Your task to perform on an android device: delete browsing data in the chrome app Image 0: 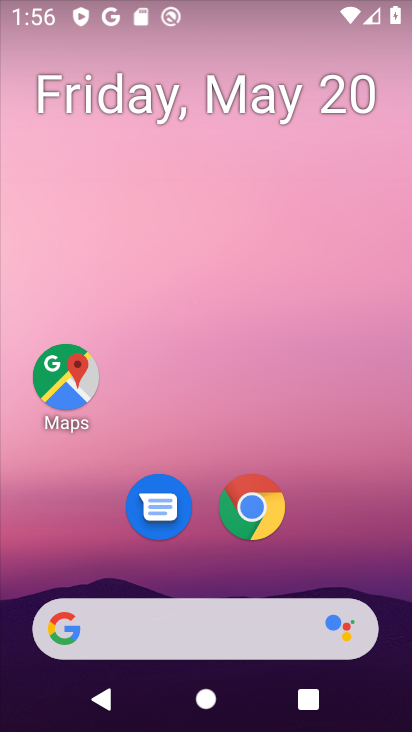
Step 0: click (248, 510)
Your task to perform on an android device: delete browsing data in the chrome app Image 1: 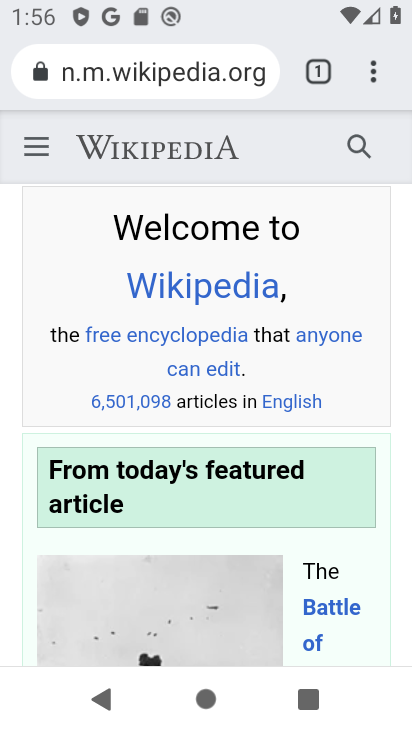
Step 1: click (374, 80)
Your task to perform on an android device: delete browsing data in the chrome app Image 2: 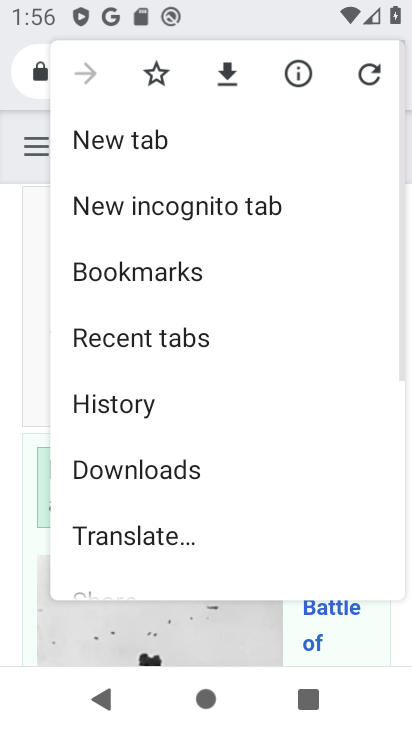
Step 2: click (193, 403)
Your task to perform on an android device: delete browsing data in the chrome app Image 3: 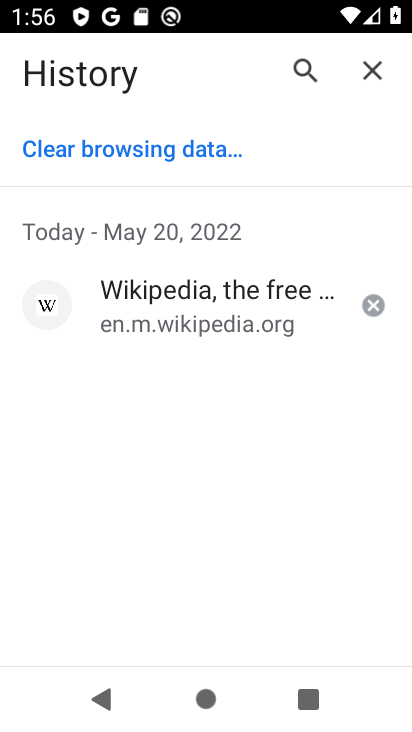
Step 3: click (77, 152)
Your task to perform on an android device: delete browsing data in the chrome app Image 4: 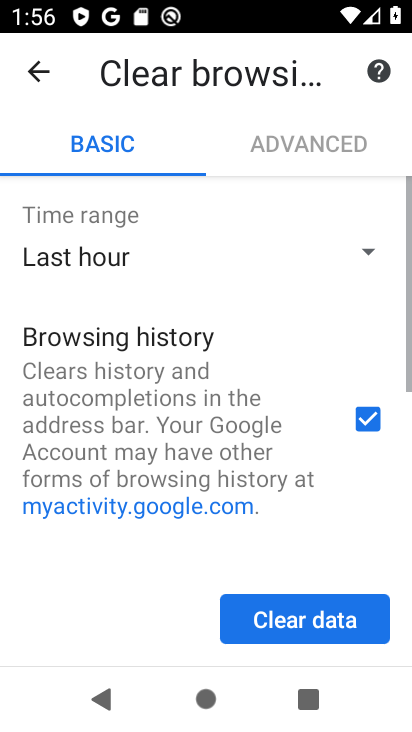
Step 4: click (338, 627)
Your task to perform on an android device: delete browsing data in the chrome app Image 5: 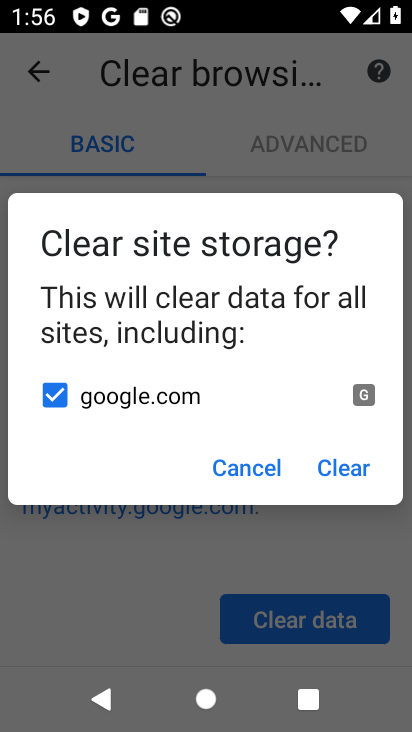
Step 5: click (351, 467)
Your task to perform on an android device: delete browsing data in the chrome app Image 6: 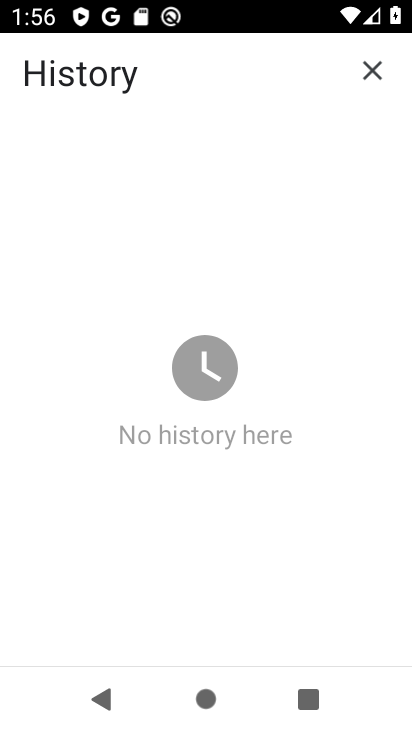
Step 6: task complete